Your task to perform on an android device: turn notification dots on Image 0: 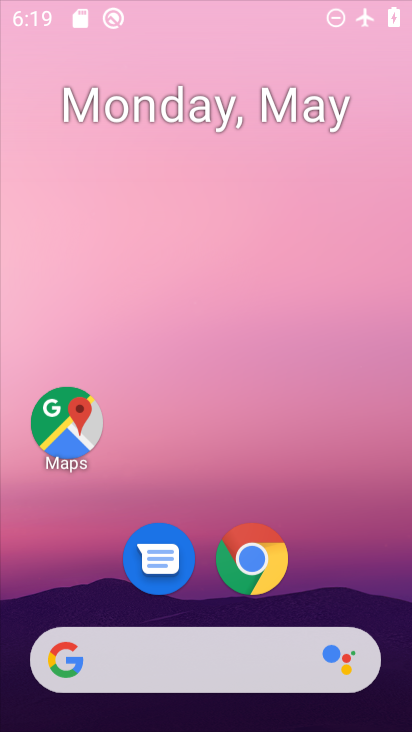
Step 0: click (255, 92)
Your task to perform on an android device: turn notification dots on Image 1: 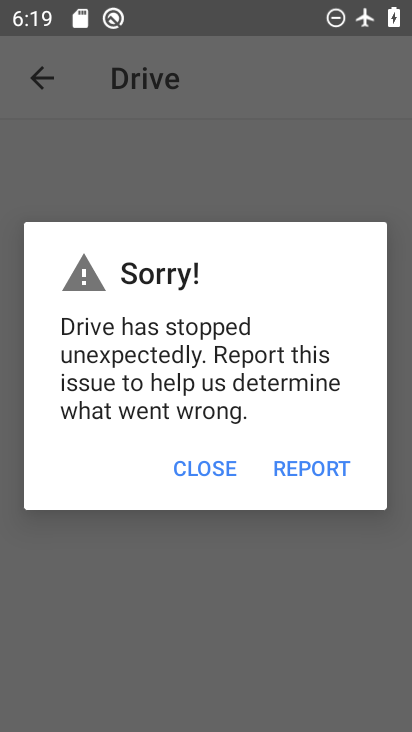
Step 1: press home button
Your task to perform on an android device: turn notification dots on Image 2: 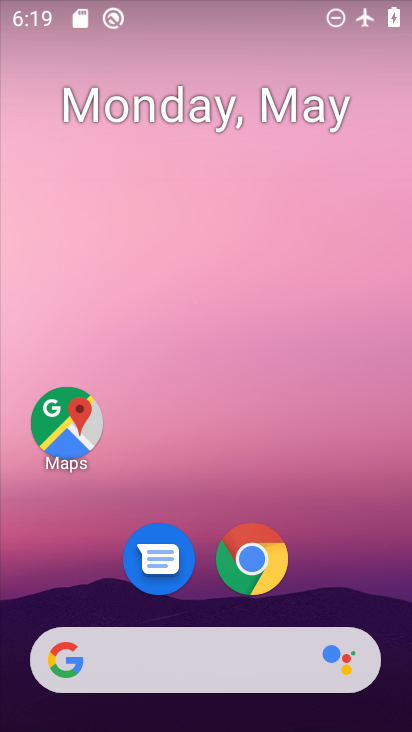
Step 2: drag from (342, 568) to (237, 62)
Your task to perform on an android device: turn notification dots on Image 3: 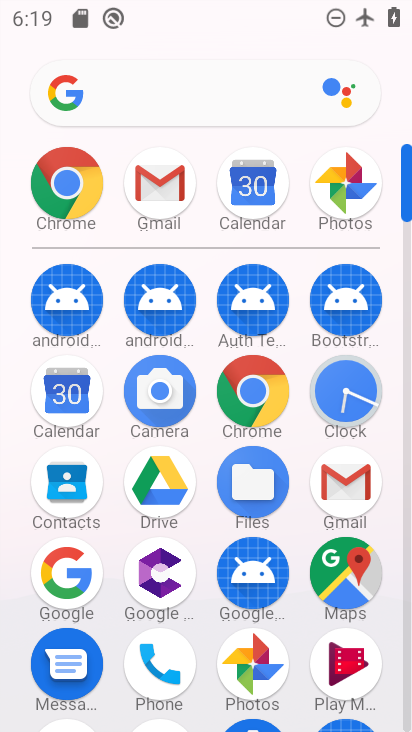
Step 3: drag from (195, 550) to (184, 186)
Your task to perform on an android device: turn notification dots on Image 4: 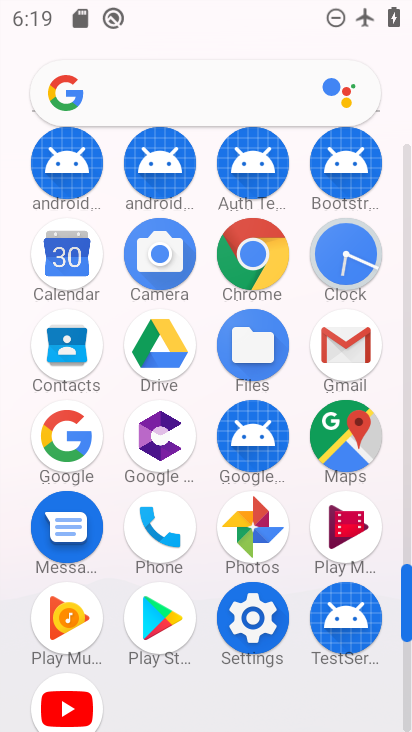
Step 4: click (256, 622)
Your task to perform on an android device: turn notification dots on Image 5: 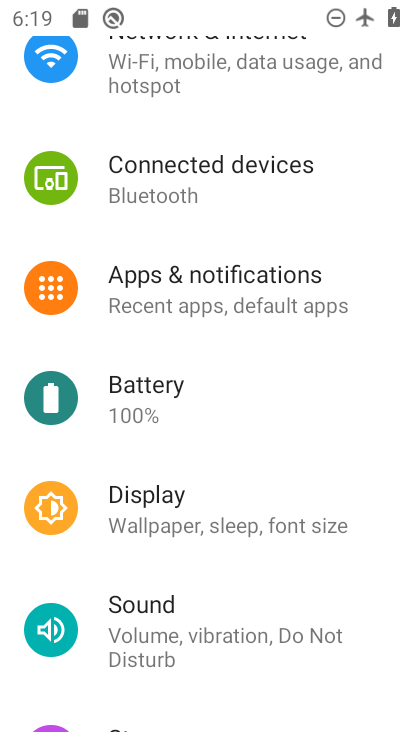
Step 5: click (200, 268)
Your task to perform on an android device: turn notification dots on Image 6: 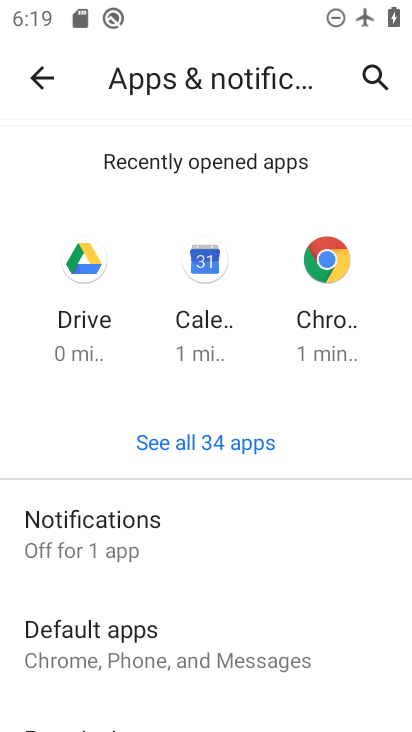
Step 6: click (124, 518)
Your task to perform on an android device: turn notification dots on Image 7: 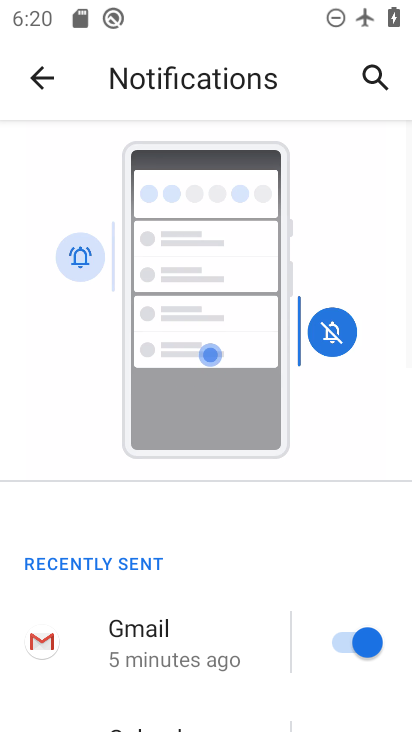
Step 7: drag from (260, 590) to (253, 167)
Your task to perform on an android device: turn notification dots on Image 8: 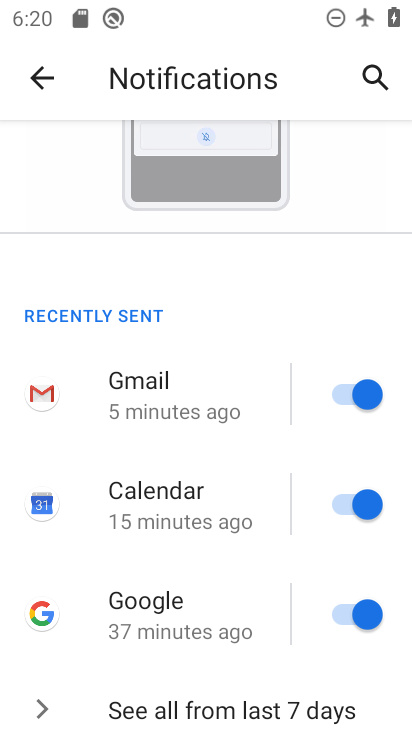
Step 8: drag from (306, 632) to (305, 334)
Your task to perform on an android device: turn notification dots on Image 9: 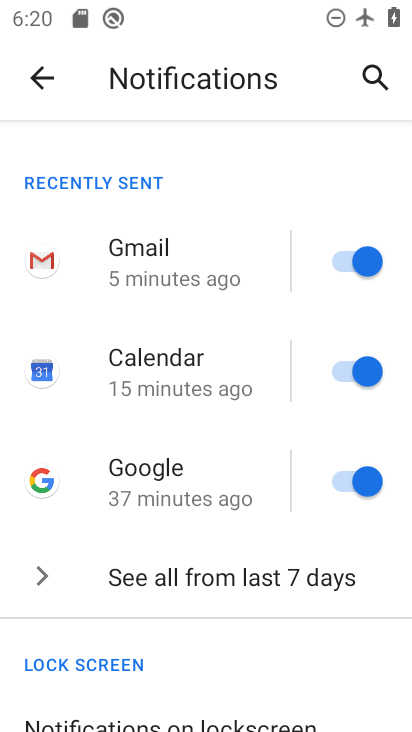
Step 9: drag from (257, 667) to (207, 216)
Your task to perform on an android device: turn notification dots on Image 10: 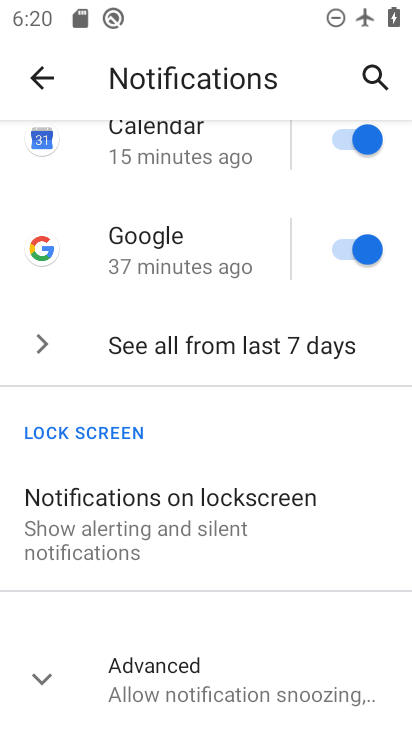
Step 10: click (82, 665)
Your task to perform on an android device: turn notification dots on Image 11: 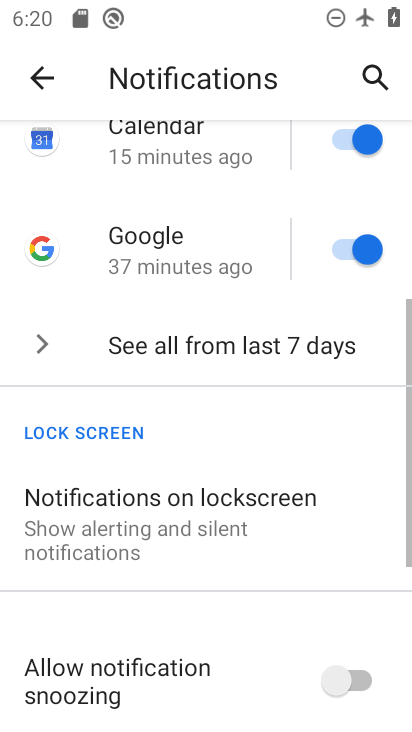
Step 11: task complete